Your task to perform on an android device: Go to CNN.com Image 0: 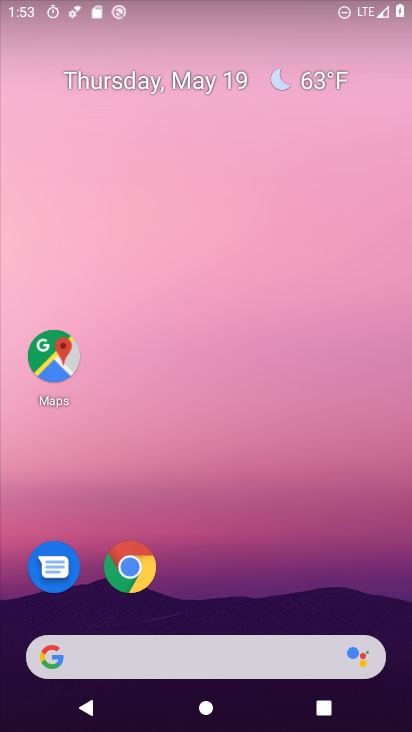
Step 0: press home button
Your task to perform on an android device: Go to CNN.com Image 1: 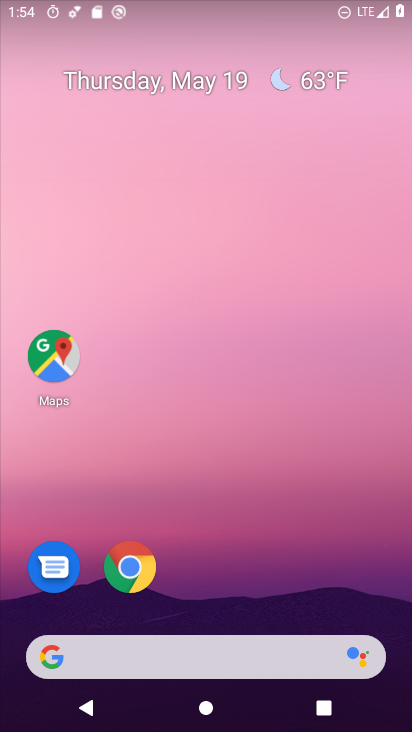
Step 1: click (127, 576)
Your task to perform on an android device: Go to CNN.com Image 2: 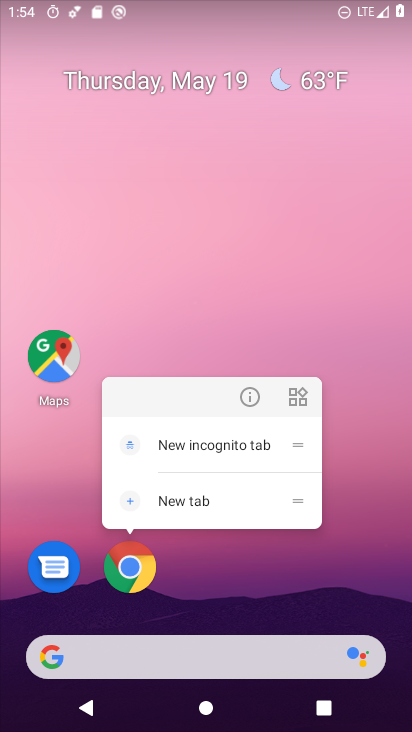
Step 2: click (137, 571)
Your task to perform on an android device: Go to CNN.com Image 3: 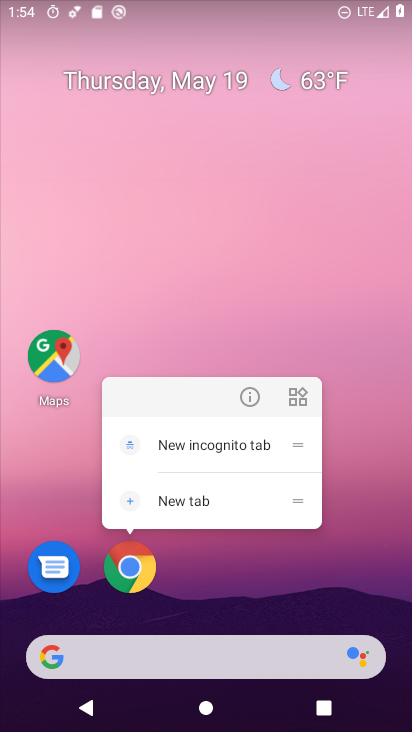
Step 3: click (130, 573)
Your task to perform on an android device: Go to CNN.com Image 4: 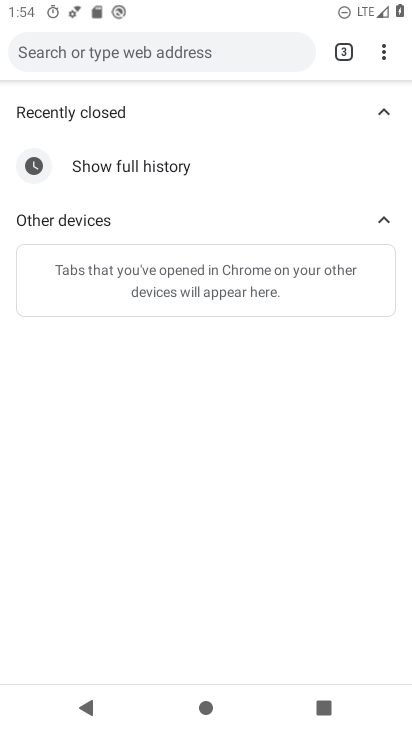
Step 4: drag from (383, 57) to (255, 104)
Your task to perform on an android device: Go to CNN.com Image 5: 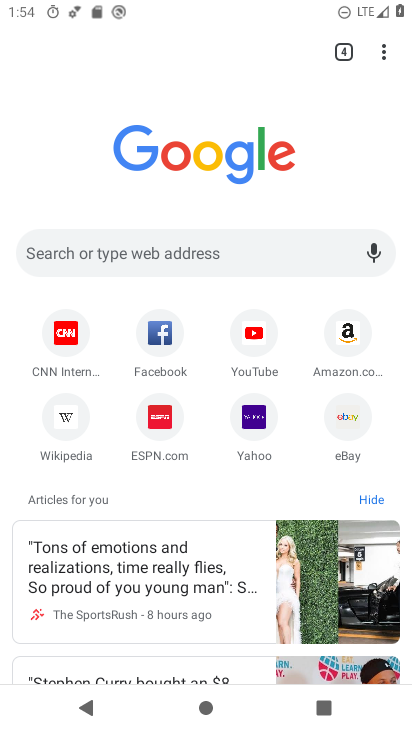
Step 5: click (66, 331)
Your task to perform on an android device: Go to CNN.com Image 6: 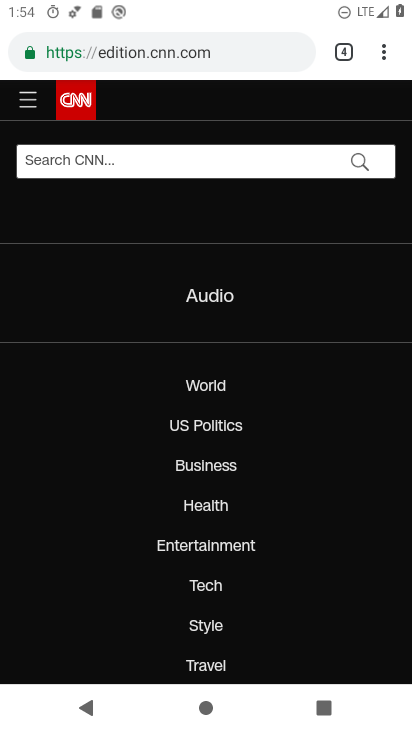
Step 6: task complete